Your task to perform on an android device: toggle improve location accuracy Image 0: 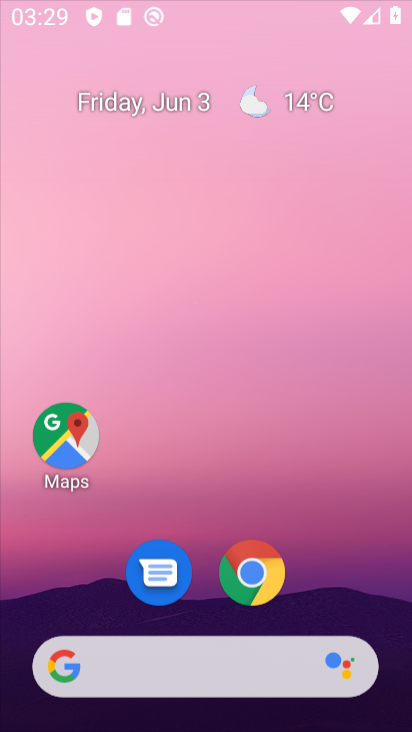
Step 0: click (358, 39)
Your task to perform on an android device: toggle improve location accuracy Image 1: 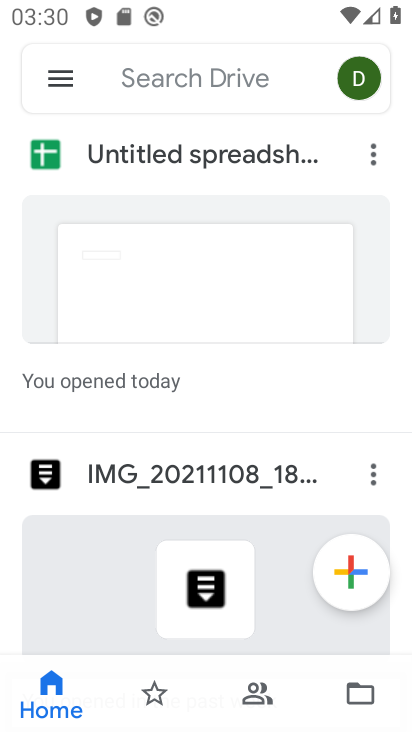
Step 1: press home button
Your task to perform on an android device: toggle improve location accuracy Image 2: 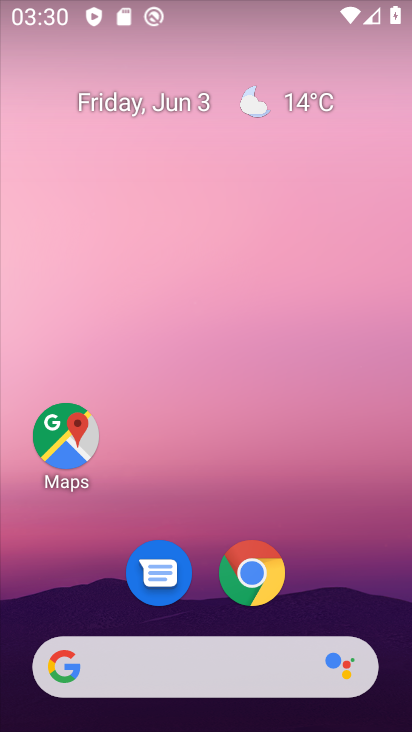
Step 2: drag from (307, 668) to (309, 65)
Your task to perform on an android device: toggle improve location accuracy Image 3: 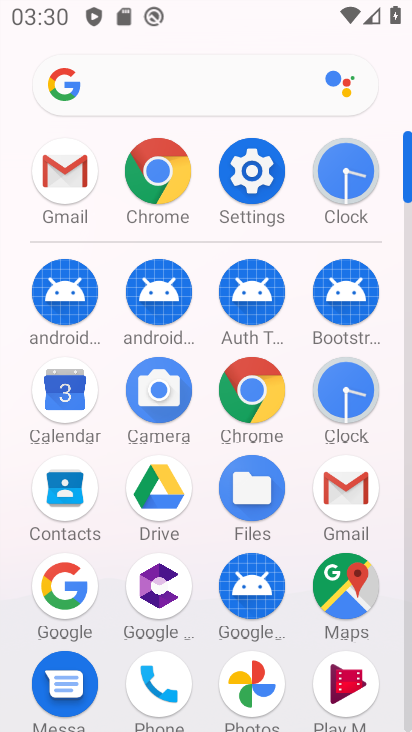
Step 3: click (262, 176)
Your task to perform on an android device: toggle improve location accuracy Image 4: 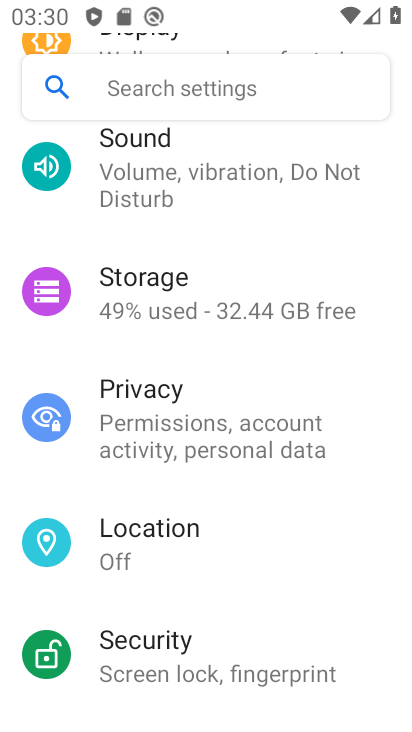
Step 4: click (201, 547)
Your task to perform on an android device: toggle improve location accuracy Image 5: 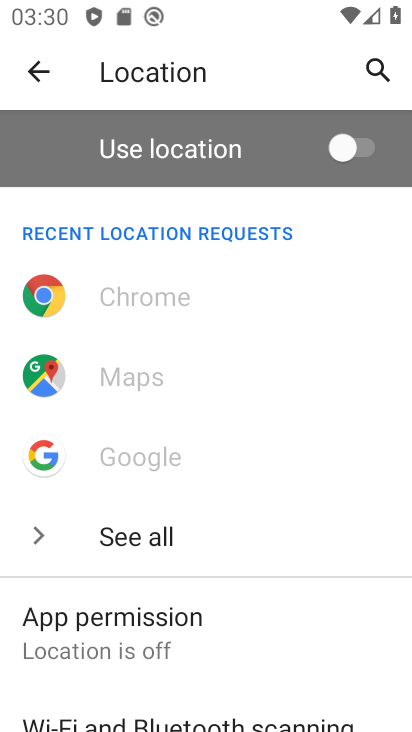
Step 5: drag from (207, 674) to (239, 166)
Your task to perform on an android device: toggle improve location accuracy Image 6: 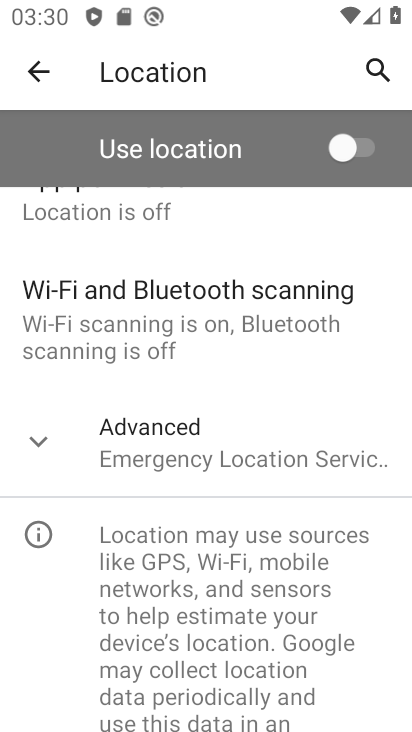
Step 6: click (241, 433)
Your task to perform on an android device: toggle improve location accuracy Image 7: 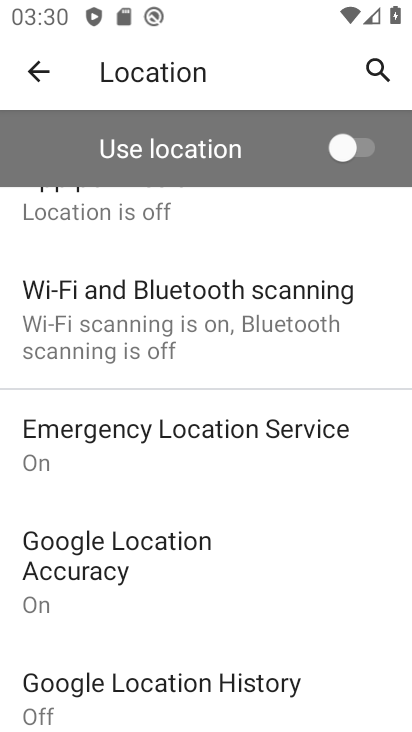
Step 7: click (178, 549)
Your task to perform on an android device: toggle improve location accuracy Image 8: 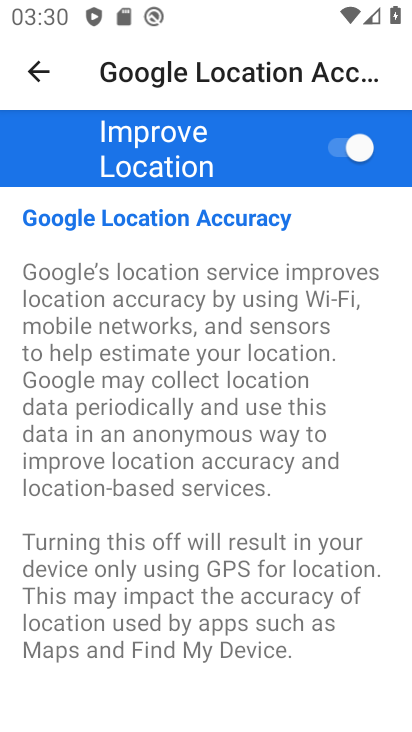
Step 8: click (341, 147)
Your task to perform on an android device: toggle improve location accuracy Image 9: 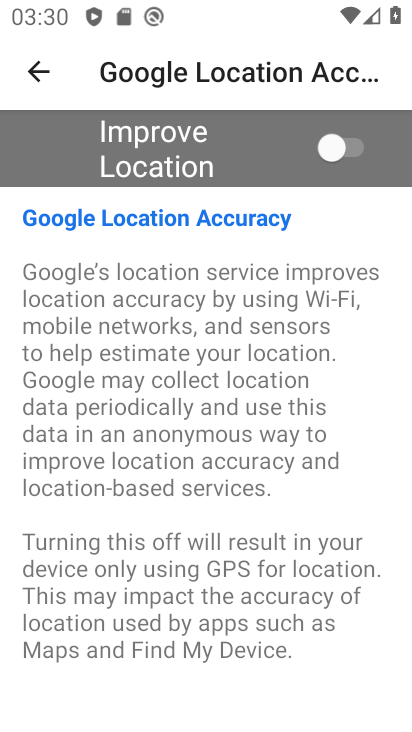
Step 9: task complete